Your task to perform on an android device: change keyboard looks Image 0: 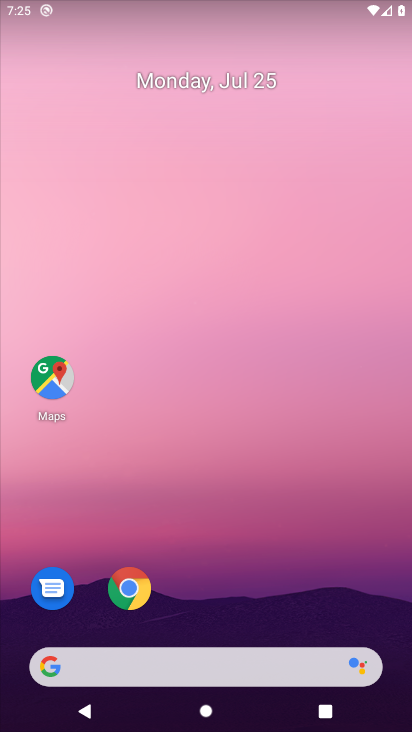
Step 0: drag from (282, 553) to (301, 114)
Your task to perform on an android device: change keyboard looks Image 1: 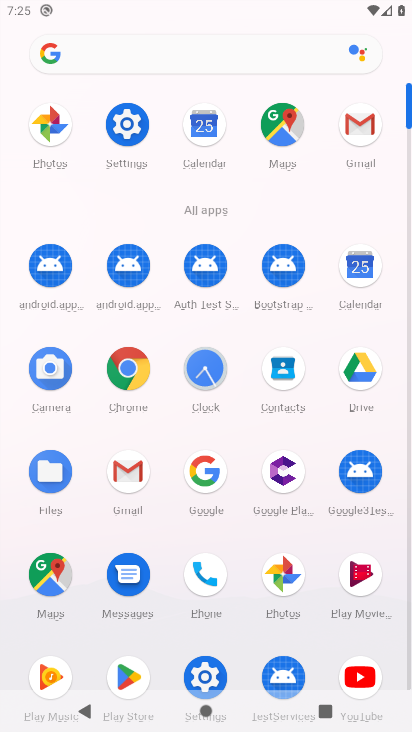
Step 1: click (208, 664)
Your task to perform on an android device: change keyboard looks Image 2: 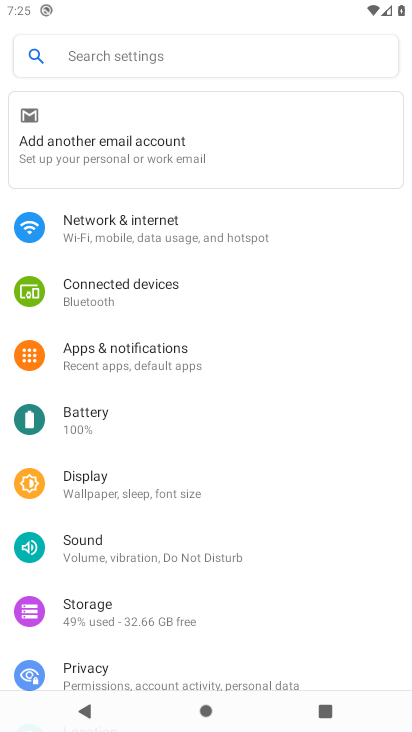
Step 2: drag from (236, 494) to (214, 274)
Your task to perform on an android device: change keyboard looks Image 3: 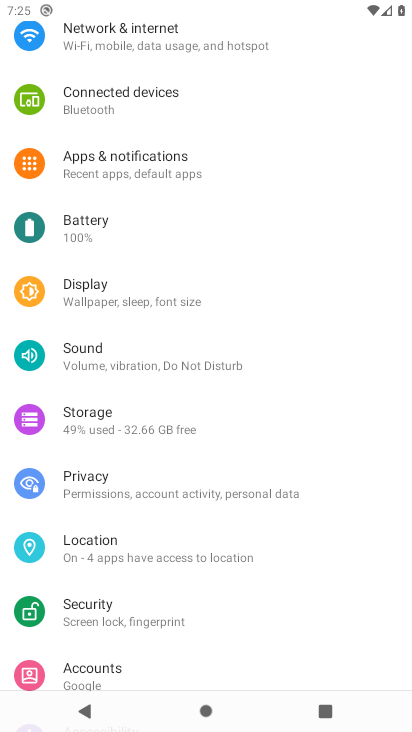
Step 3: drag from (207, 554) to (201, 328)
Your task to perform on an android device: change keyboard looks Image 4: 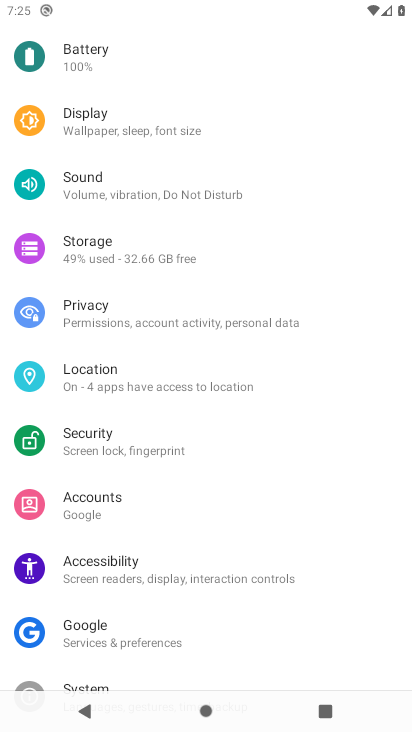
Step 4: drag from (214, 261) to (243, 661)
Your task to perform on an android device: change keyboard looks Image 5: 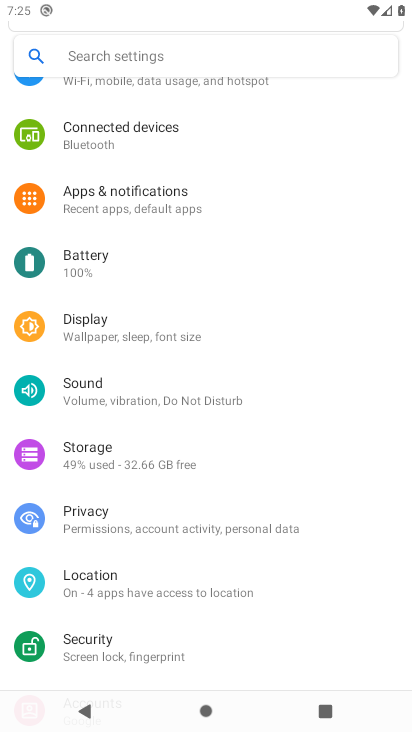
Step 5: click (211, 48)
Your task to perform on an android device: change keyboard looks Image 6: 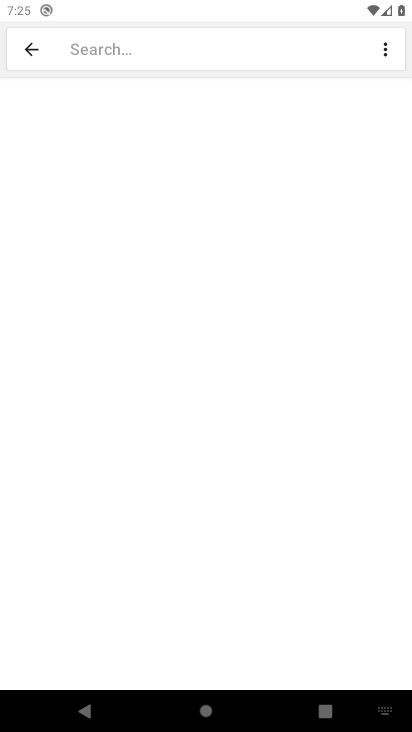
Step 6: type "keyboard"
Your task to perform on an android device: change keyboard looks Image 7: 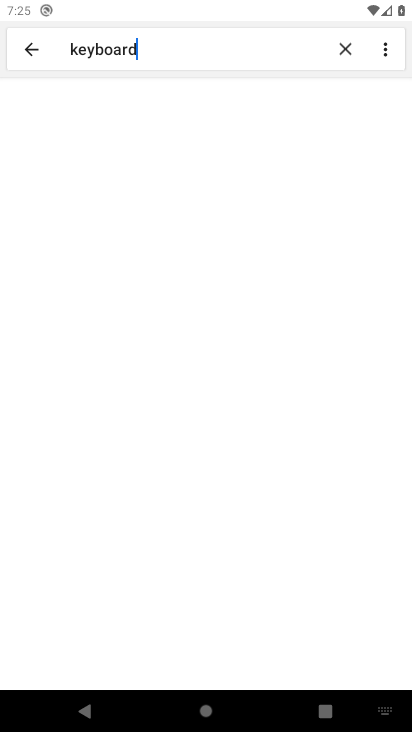
Step 7: type ""
Your task to perform on an android device: change keyboard looks Image 8: 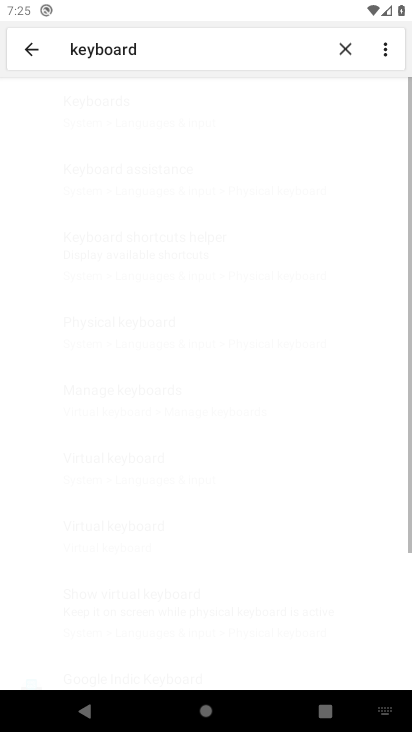
Step 8: press enter
Your task to perform on an android device: change keyboard looks Image 9: 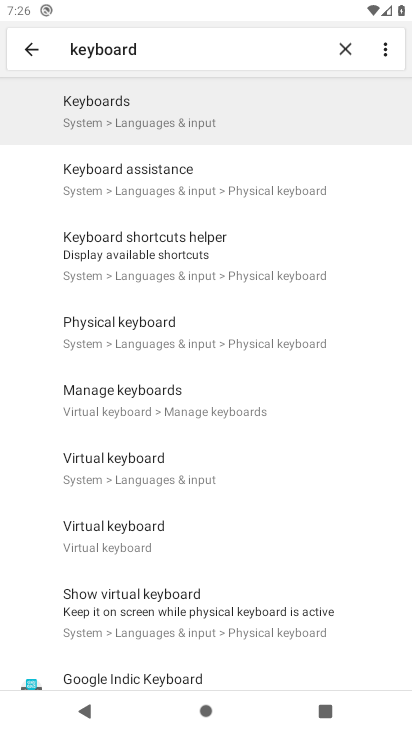
Step 9: click (159, 123)
Your task to perform on an android device: change keyboard looks Image 10: 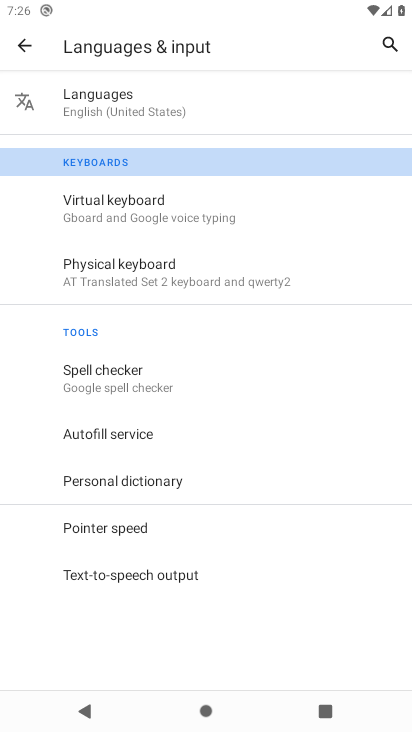
Step 10: task complete